Your task to perform on an android device: See recent photos Image 0: 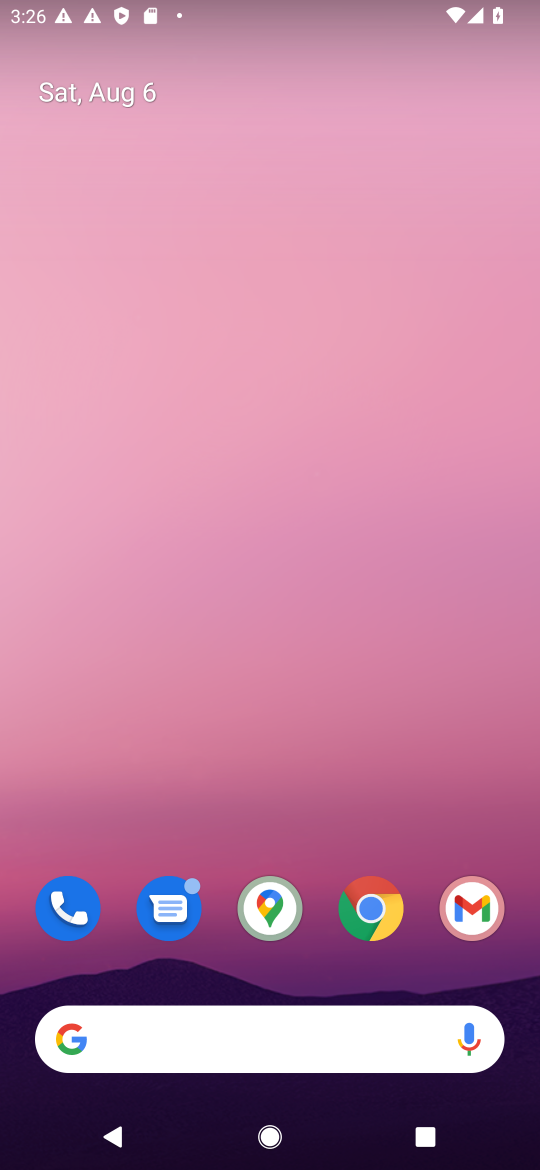
Step 0: drag from (230, 855) to (172, 6)
Your task to perform on an android device: See recent photos Image 1: 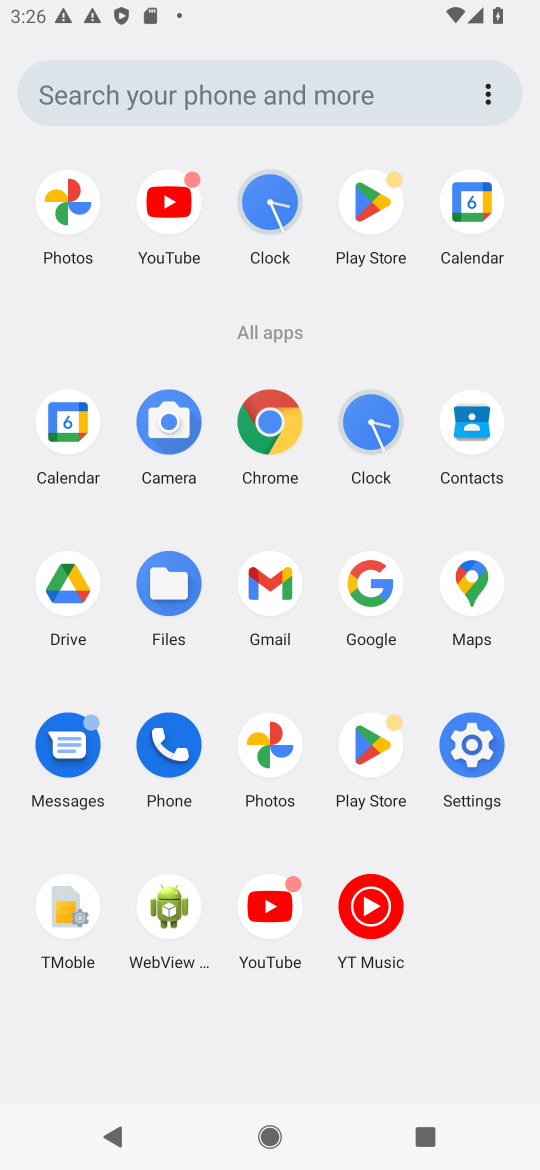
Step 1: click (288, 776)
Your task to perform on an android device: See recent photos Image 2: 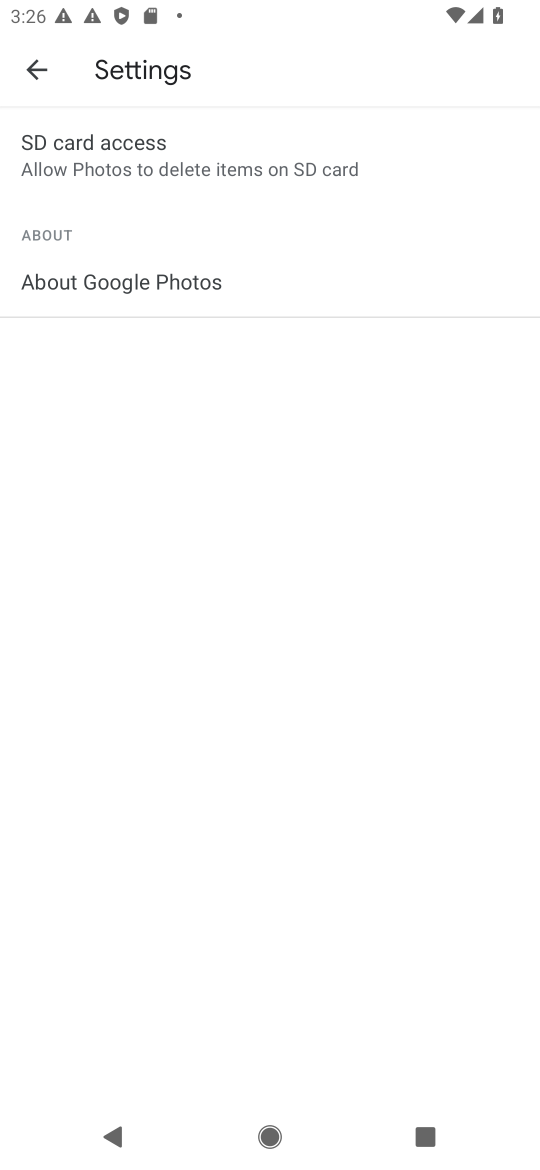
Step 2: click (37, 73)
Your task to perform on an android device: See recent photos Image 3: 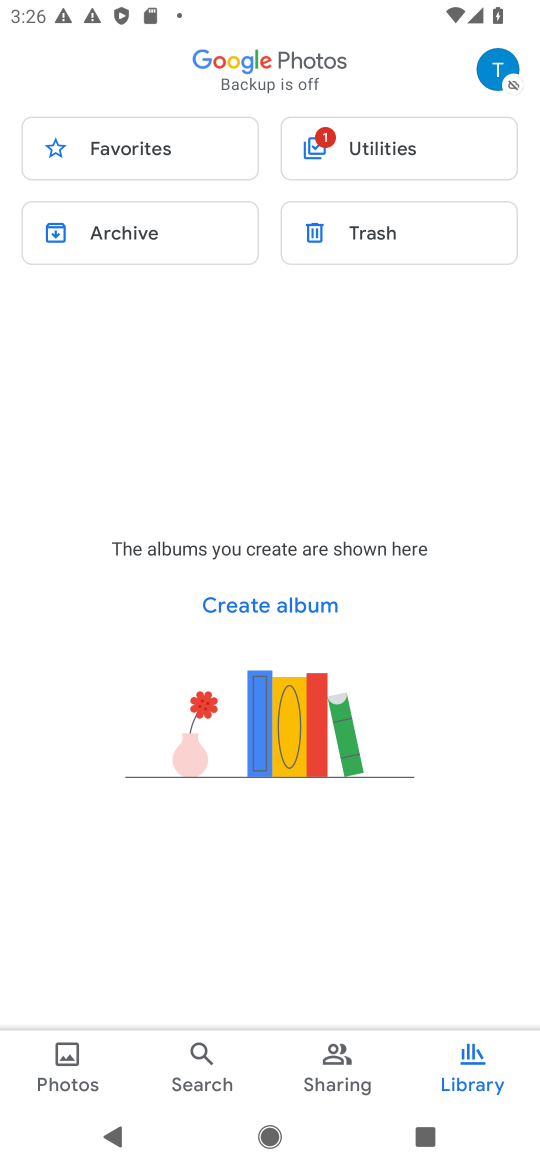
Step 3: click (61, 1063)
Your task to perform on an android device: See recent photos Image 4: 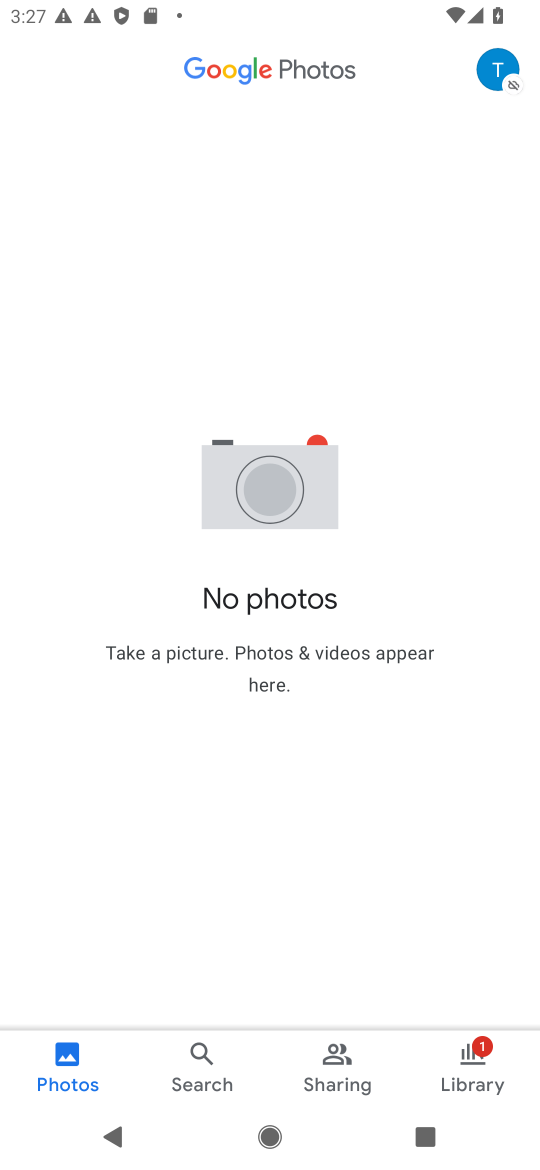
Step 4: task complete